Your task to perform on an android device: Open wifi settings Image 0: 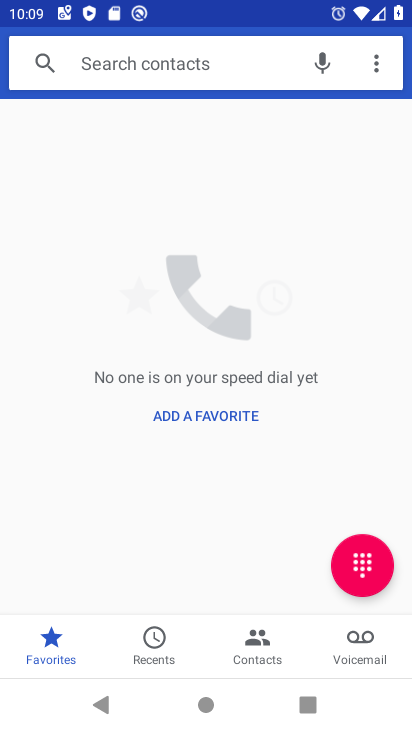
Step 0: press back button
Your task to perform on an android device: Open wifi settings Image 1: 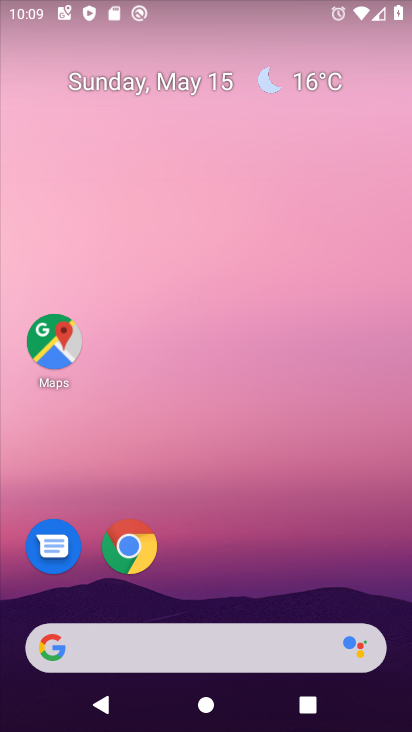
Step 1: drag from (200, 133) to (194, 94)
Your task to perform on an android device: Open wifi settings Image 2: 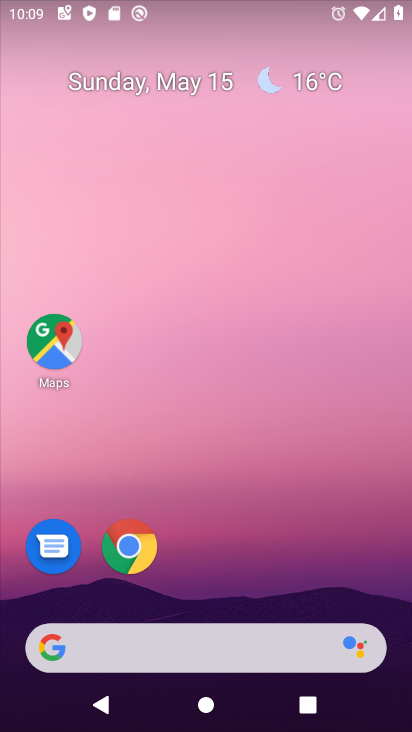
Step 2: drag from (200, 629) to (196, 282)
Your task to perform on an android device: Open wifi settings Image 3: 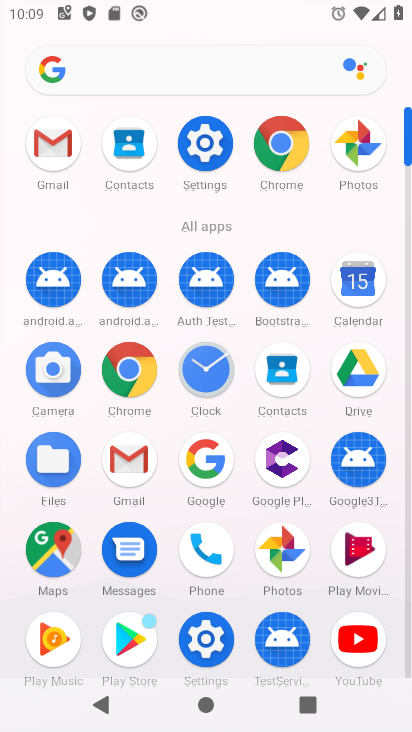
Step 3: click (198, 150)
Your task to perform on an android device: Open wifi settings Image 4: 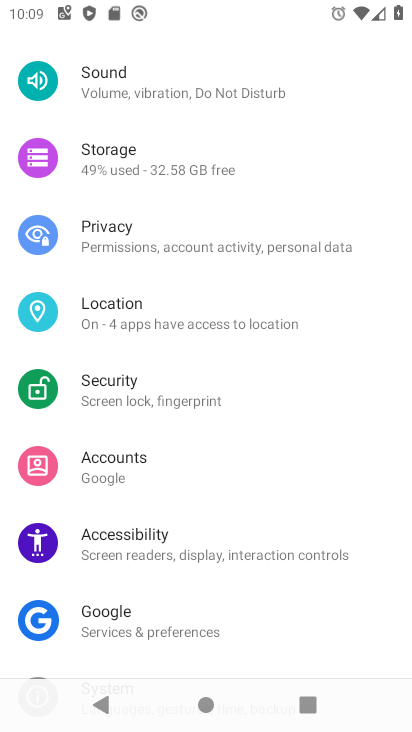
Step 4: drag from (126, 241) to (86, 558)
Your task to perform on an android device: Open wifi settings Image 5: 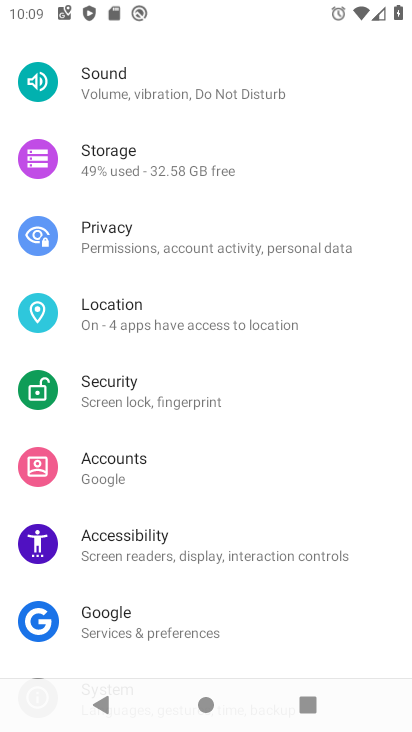
Step 5: drag from (139, 427) to (139, 619)
Your task to perform on an android device: Open wifi settings Image 6: 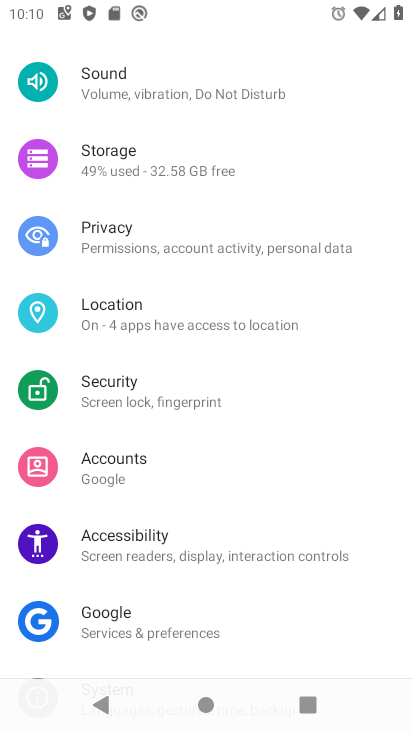
Step 6: drag from (154, 219) to (173, 653)
Your task to perform on an android device: Open wifi settings Image 7: 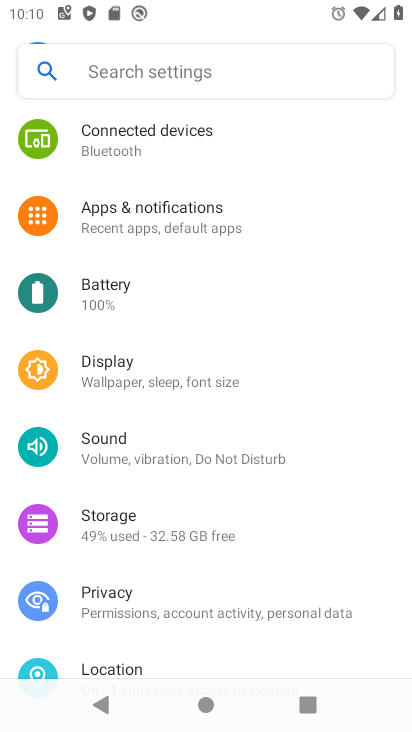
Step 7: drag from (182, 585) to (214, 627)
Your task to perform on an android device: Open wifi settings Image 8: 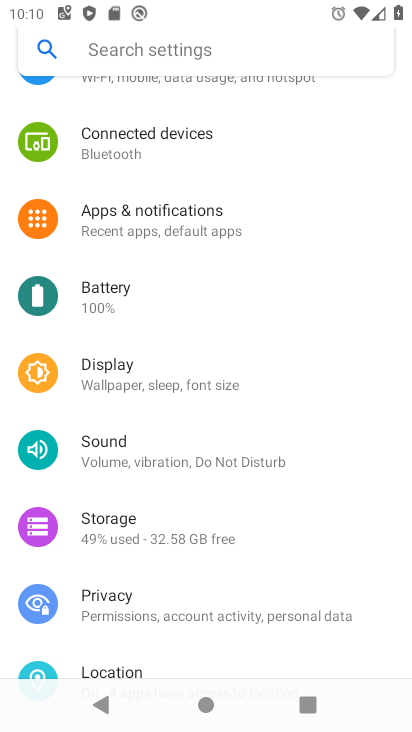
Step 8: drag from (148, 273) to (148, 543)
Your task to perform on an android device: Open wifi settings Image 9: 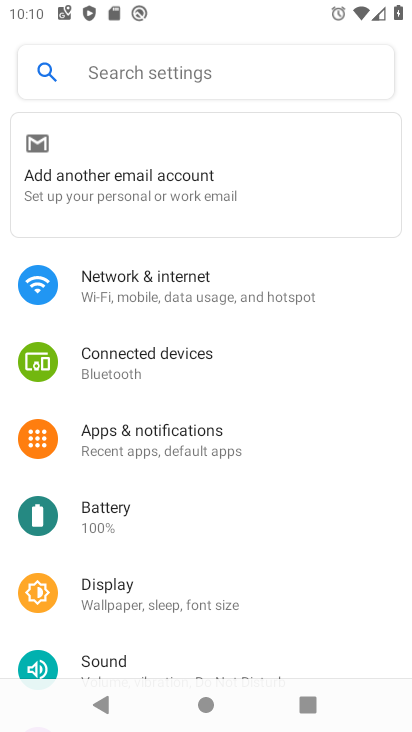
Step 9: drag from (224, 276) to (248, 719)
Your task to perform on an android device: Open wifi settings Image 10: 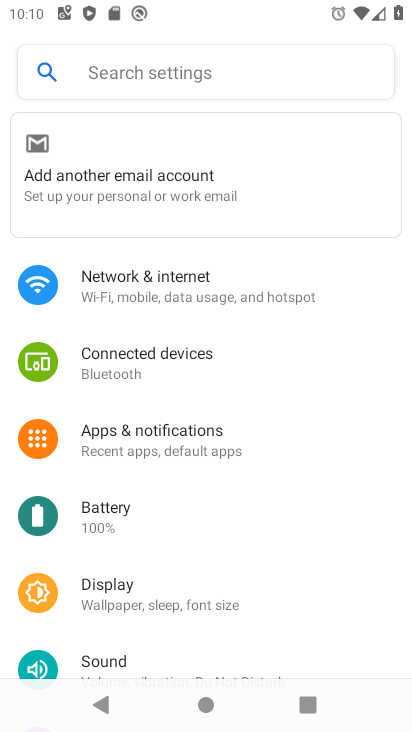
Step 10: drag from (185, 235) to (220, 648)
Your task to perform on an android device: Open wifi settings Image 11: 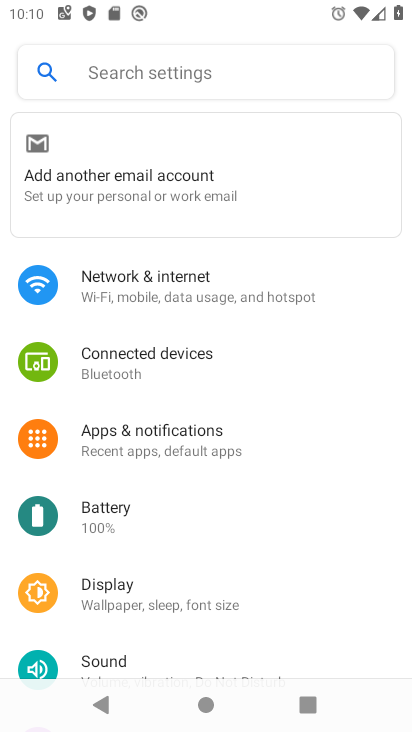
Step 11: click (174, 293)
Your task to perform on an android device: Open wifi settings Image 12: 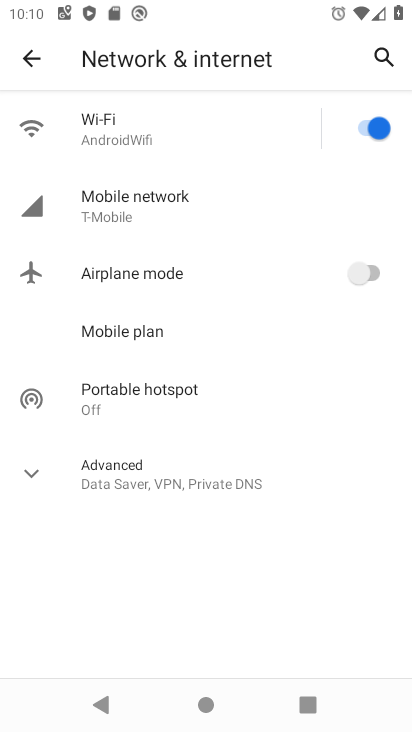
Step 12: task complete